Your task to perform on an android device: turn off notifications settings in the gmail app Image 0: 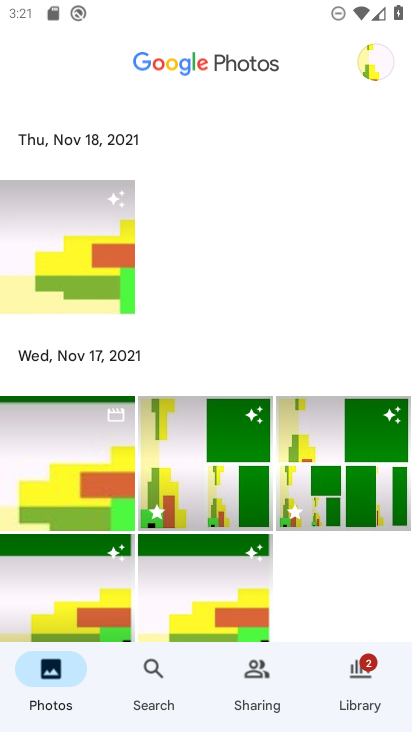
Step 0: click (8, 729)
Your task to perform on an android device: turn off notifications settings in the gmail app Image 1: 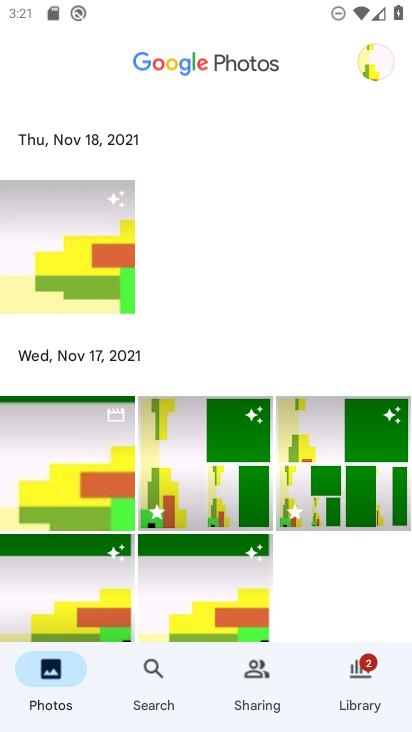
Step 1: click (316, 584)
Your task to perform on an android device: turn off notifications settings in the gmail app Image 2: 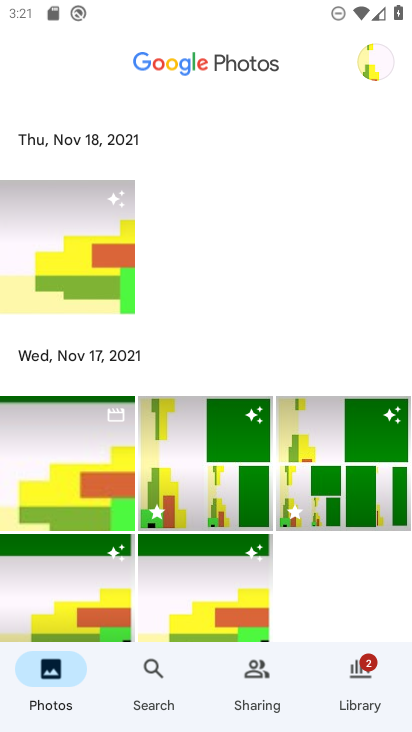
Step 2: click (315, 331)
Your task to perform on an android device: turn off notifications settings in the gmail app Image 3: 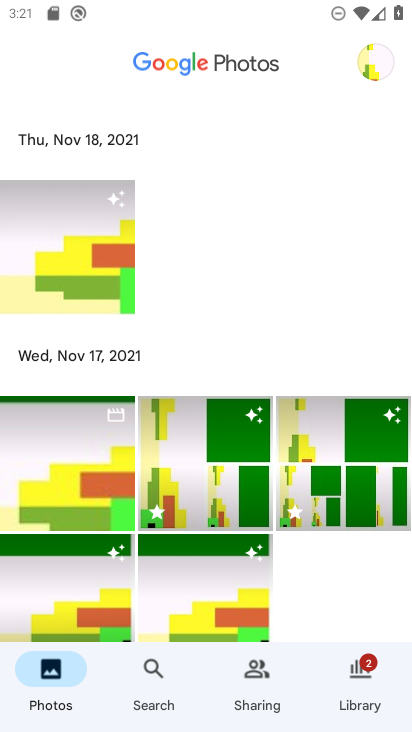
Step 3: press home button
Your task to perform on an android device: turn off notifications settings in the gmail app Image 4: 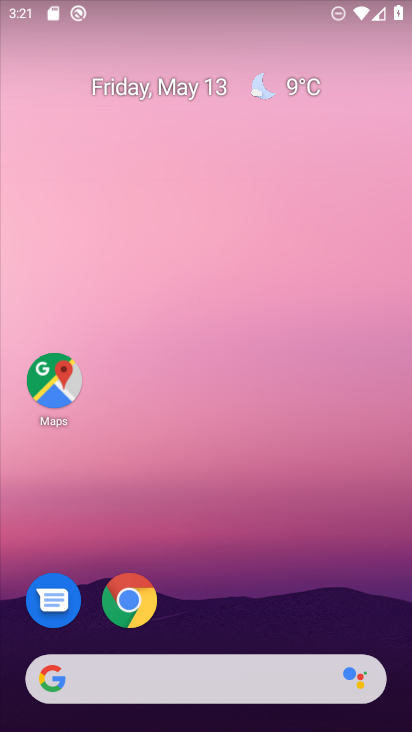
Step 4: drag from (217, 637) to (401, 19)
Your task to perform on an android device: turn off notifications settings in the gmail app Image 5: 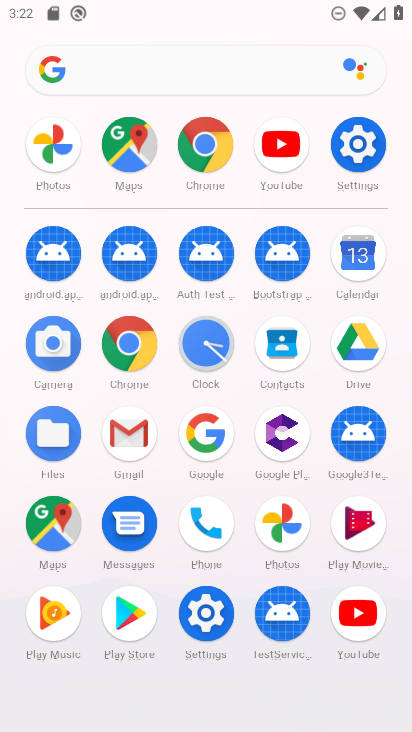
Step 5: click (127, 442)
Your task to perform on an android device: turn off notifications settings in the gmail app Image 6: 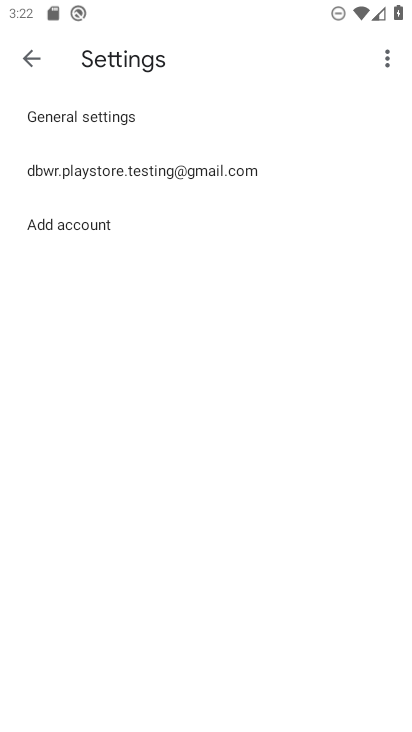
Step 6: click (159, 174)
Your task to perform on an android device: turn off notifications settings in the gmail app Image 7: 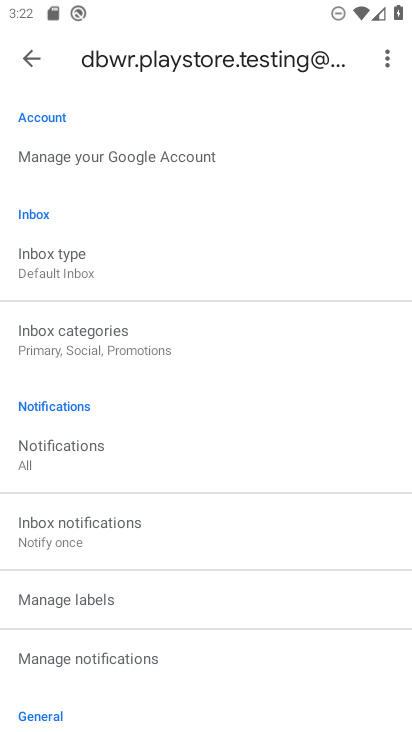
Step 7: drag from (189, 590) to (300, 108)
Your task to perform on an android device: turn off notifications settings in the gmail app Image 8: 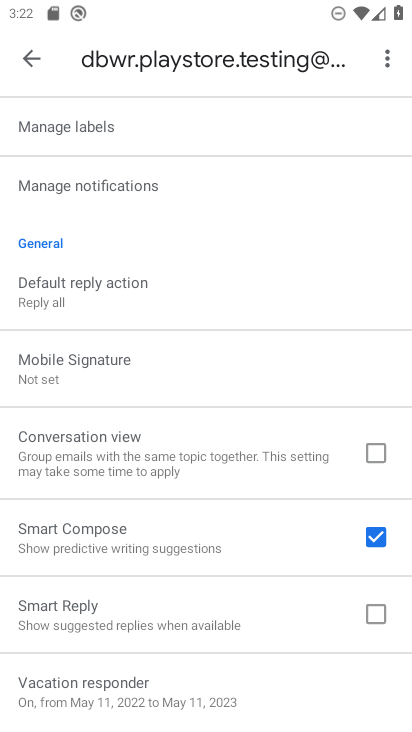
Step 8: click (162, 183)
Your task to perform on an android device: turn off notifications settings in the gmail app Image 9: 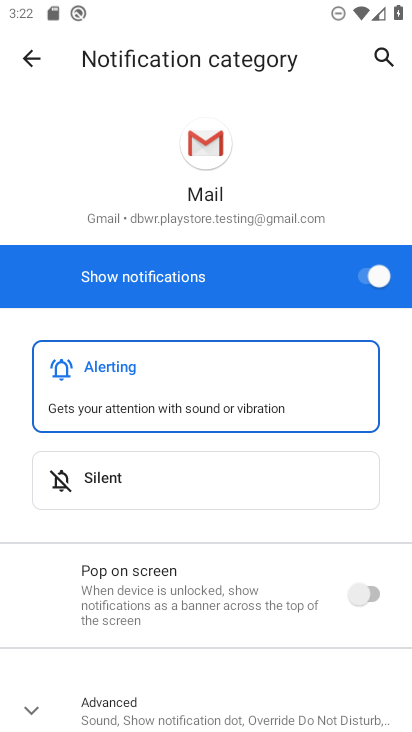
Step 9: click (359, 273)
Your task to perform on an android device: turn off notifications settings in the gmail app Image 10: 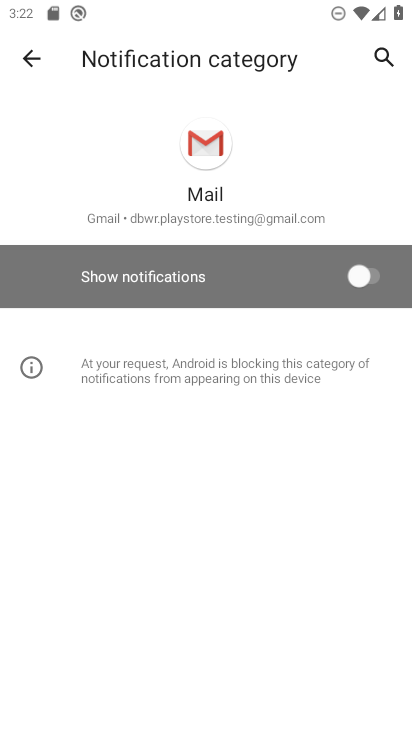
Step 10: task complete